Your task to perform on an android device: When is my next meeting? Image 0: 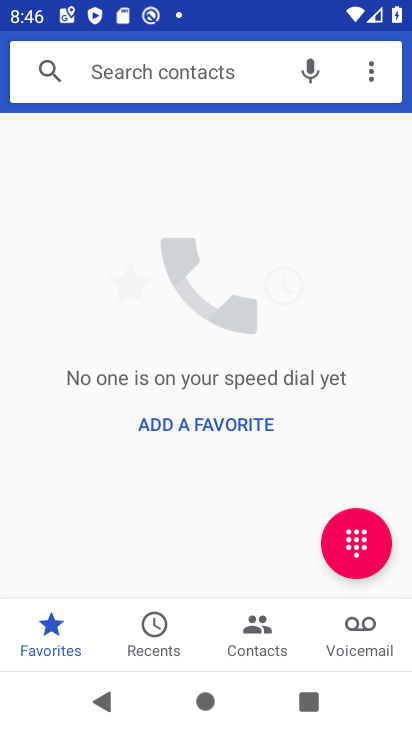
Step 0: press home button
Your task to perform on an android device: When is my next meeting? Image 1: 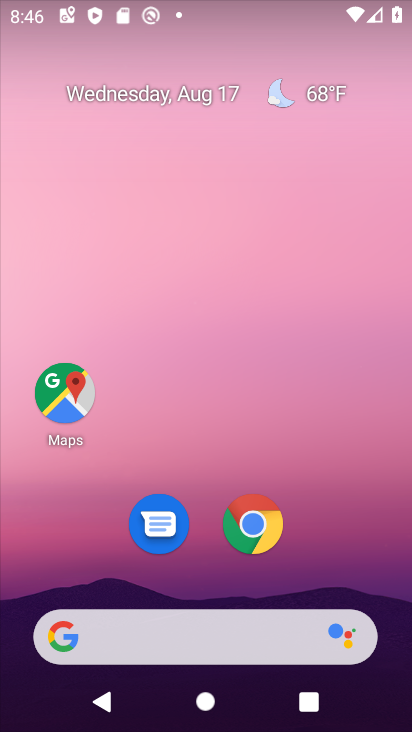
Step 1: drag from (320, 524) to (297, 38)
Your task to perform on an android device: When is my next meeting? Image 2: 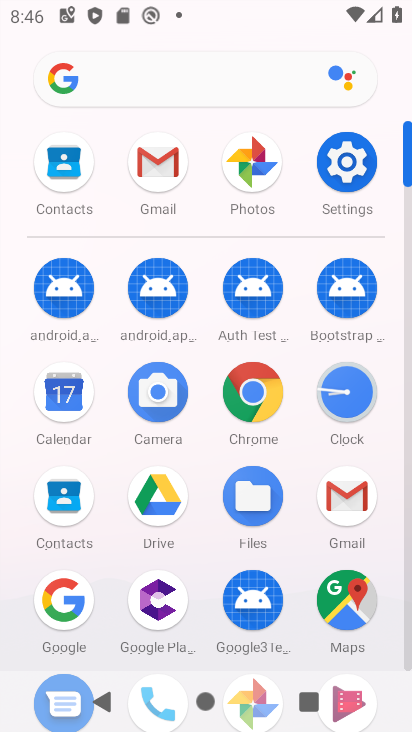
Step 2: click (70, 395)
Your task to perform on an android device: When is my next meeting? Image 3: 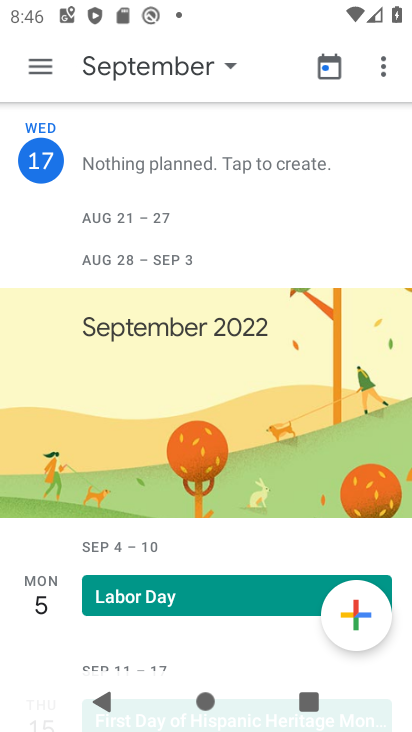
Step 3: drag from (262, 503) to (275, 56)
Your task to perform on an android device: When is my next meeting? Image 4: 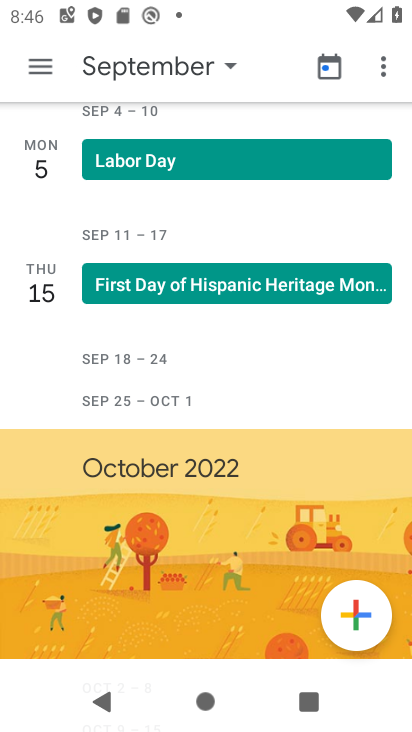
Step 4: drag from (273, 202) to (259, 627)
Your task to perform on an android device: When is my next meeting? Image 5: 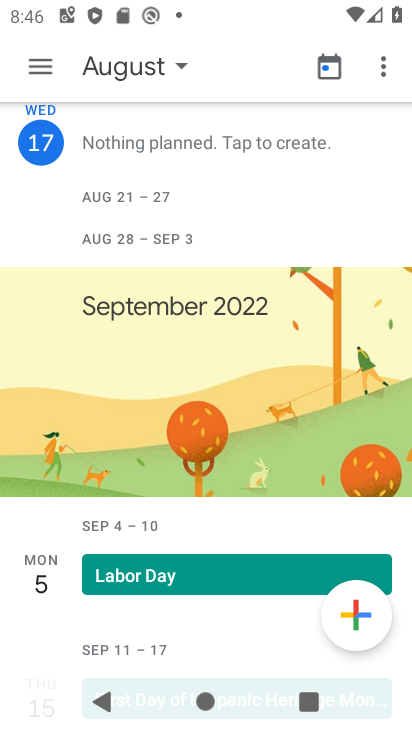
Step 5: drag from (297, 258) to (267, 553)
Your task to perform on an android device: When is my next meeting? Image 6: 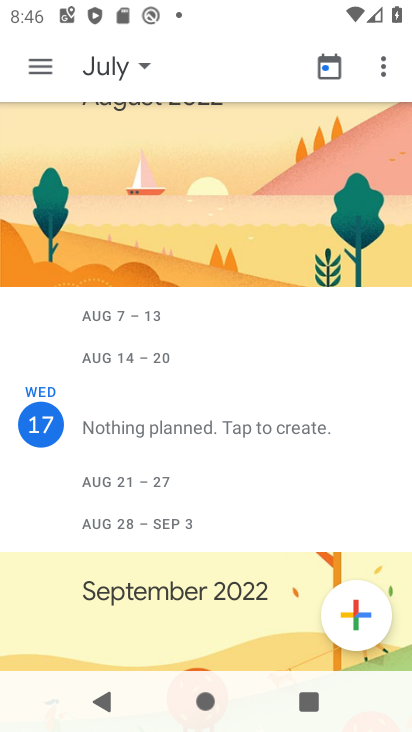
Step 6: click (42, 418)
Your task to perform on an android device: When is my next meeting? Image 7: 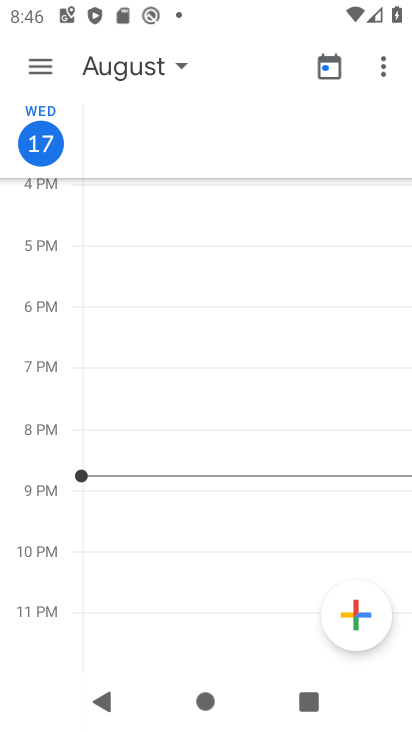
Step 7: task complete